Your task to perform on an android device: empty trash in google photos Image 0: 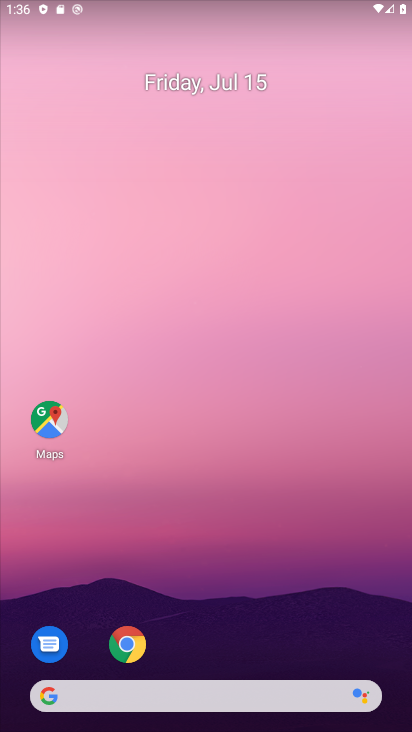
Step 0: drag from (364, 613) to (187, 100)
Your task to perform on an android device: empty trash in google photos Image 1: 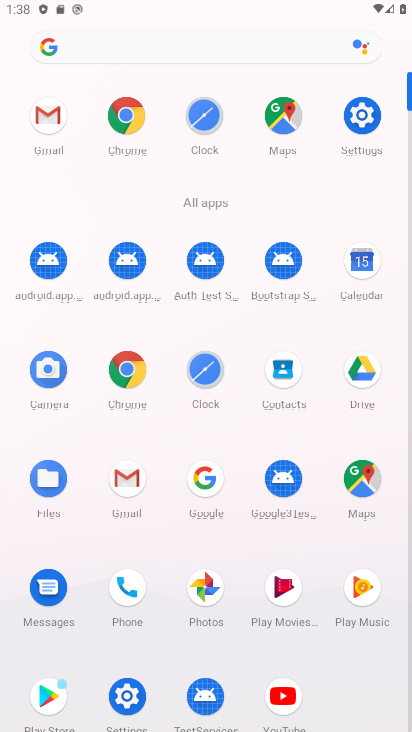
Step 1: click (196, 585)
Your task to perform on an android device: empty trash in google photos Image 2: 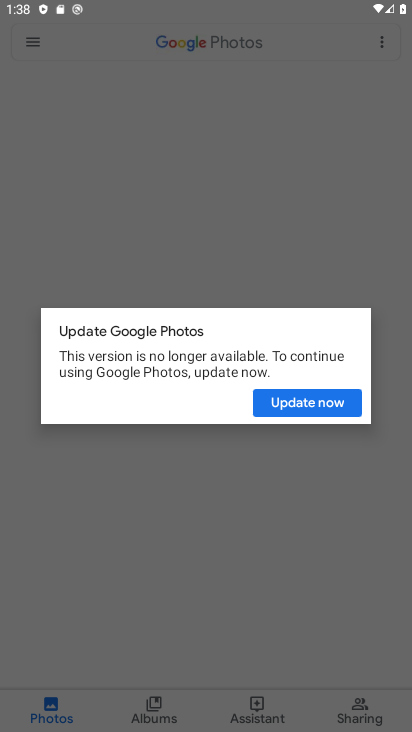
Step 2: click (313, 394)
Your task to perform on an android device: empty trash in google photos Image 3: 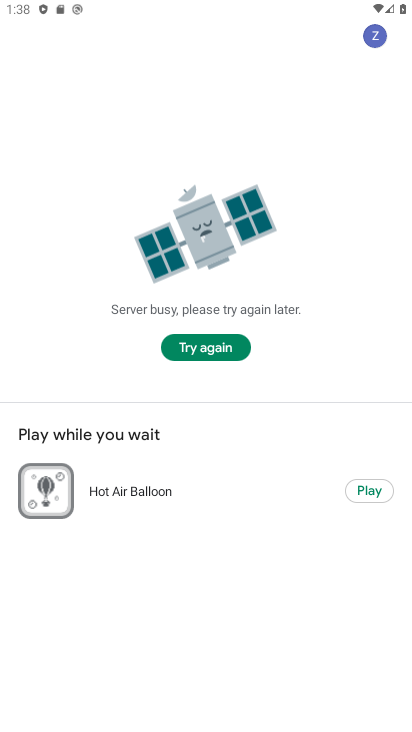
Step 3: task complete